Your task to perform on an android device: check storage Image 0: 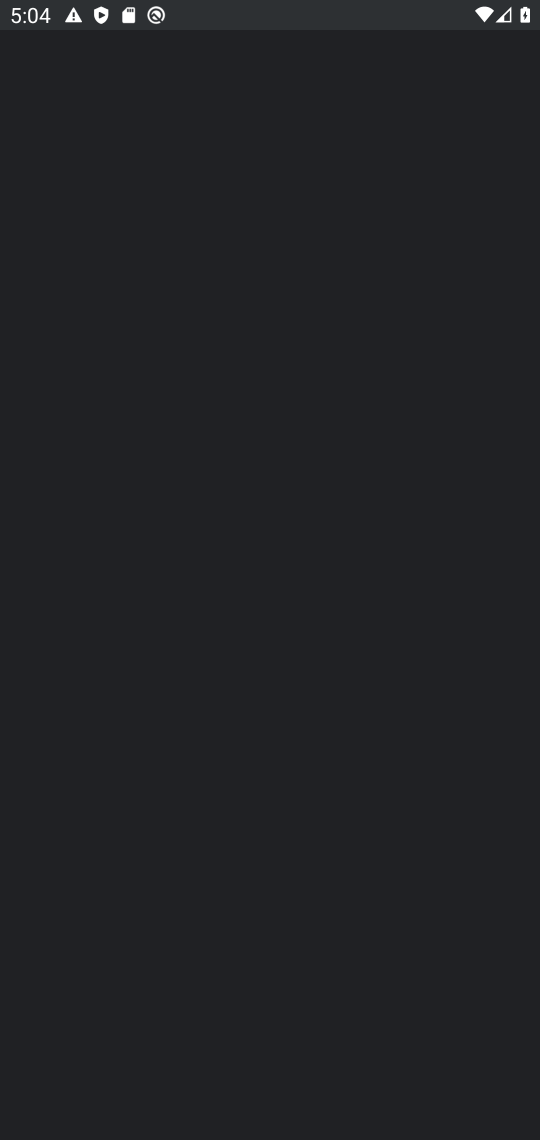
Step 0: press home button
Your task to perform on an android device: check storage Image 1: 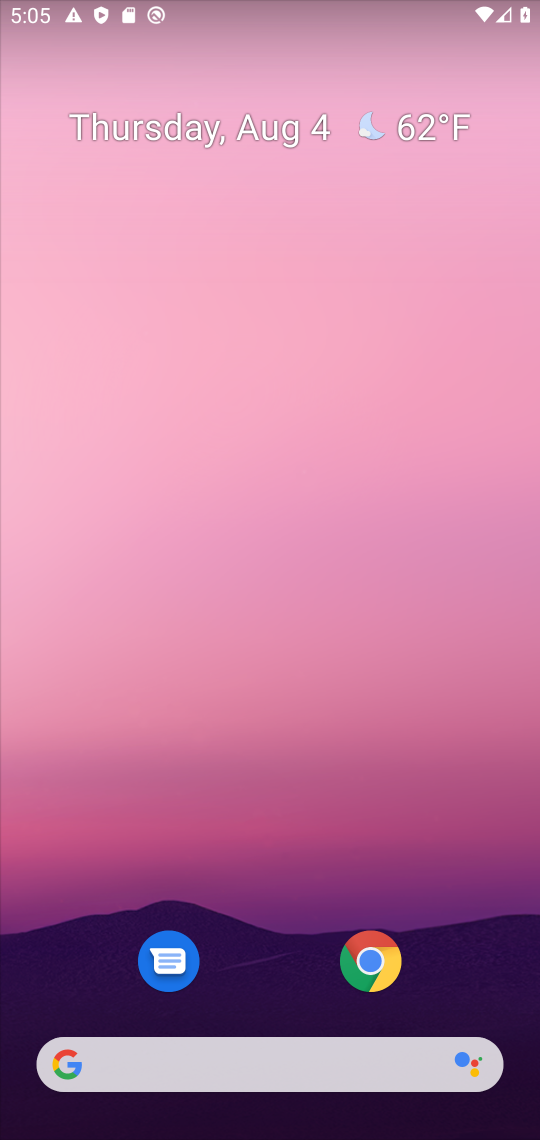
Step 1: drag from (466, 955) to (415, 195)
Your task to perform on an android device: check storage Image 2: 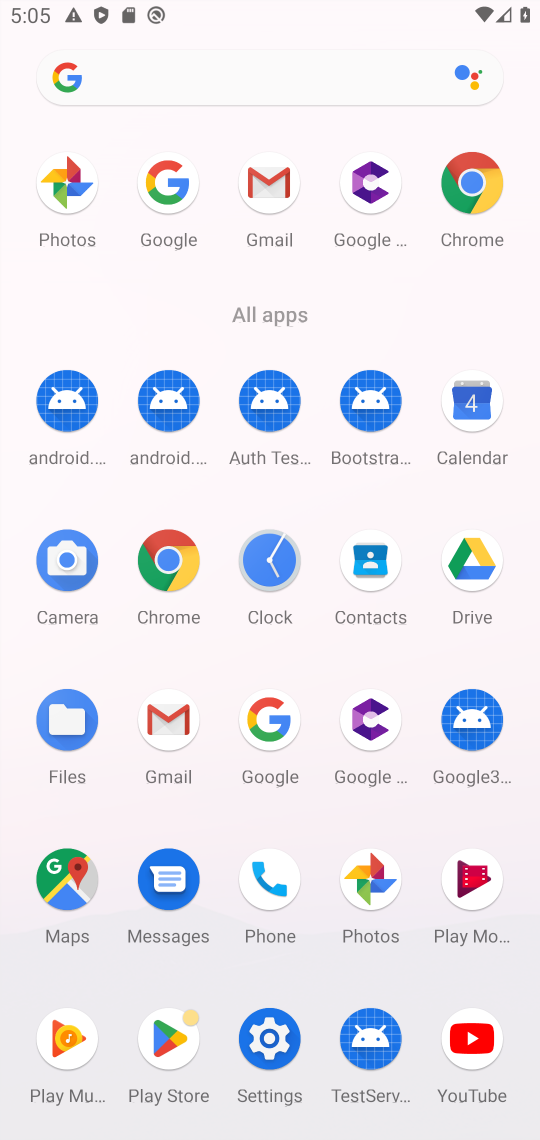
Step 2: click (282, 1020)
Your task to perform on an android device: check storage Image 3: 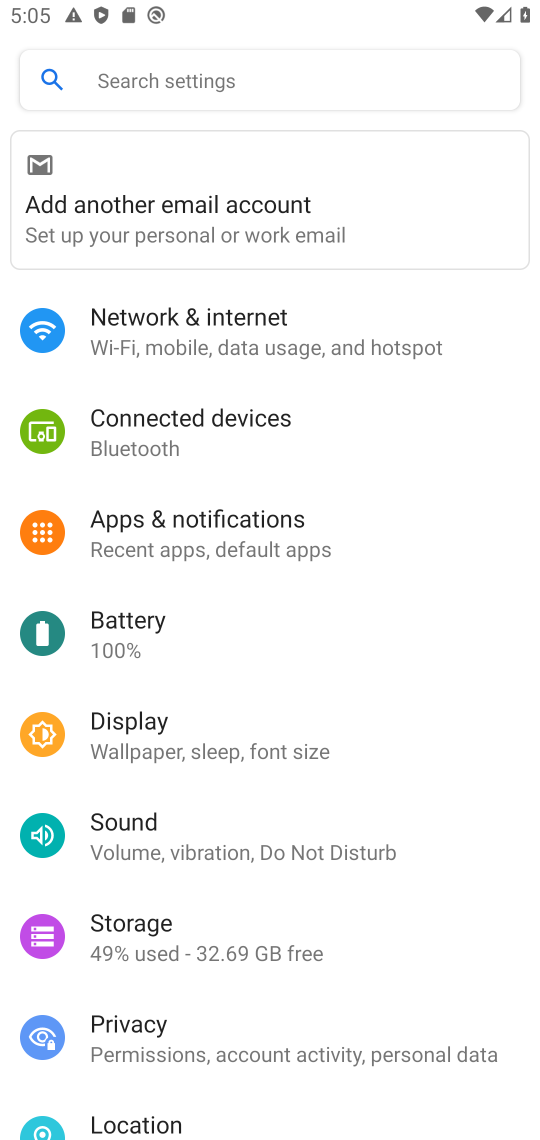
Step 3: drag from (264, 1016) to (198, 311)
Your task to perform on an android device: check storage Image 4: 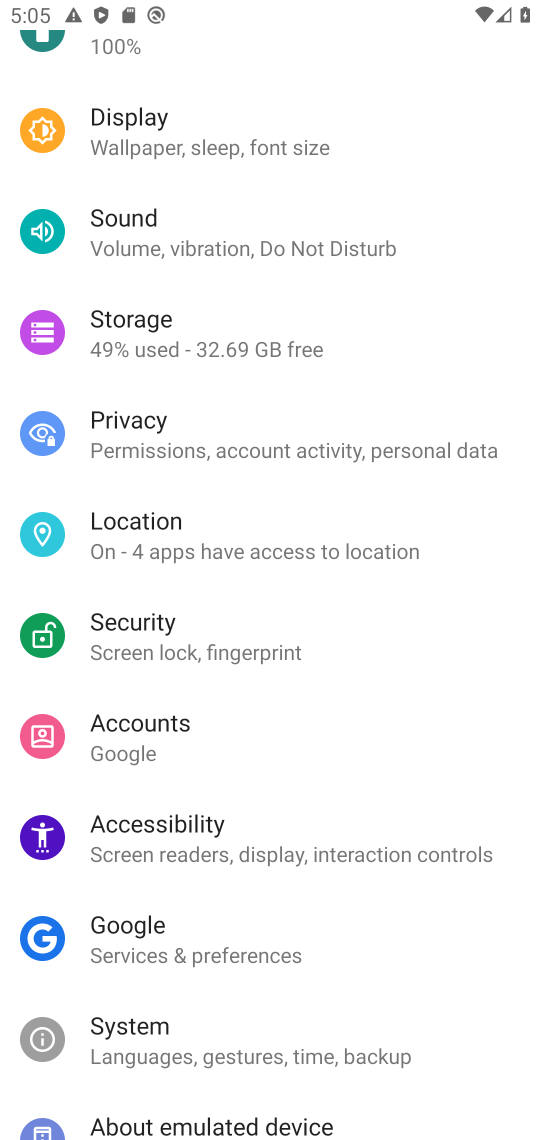
Step 4: click (179, 357)
Your task to perform on an android device: check storage Image 5: 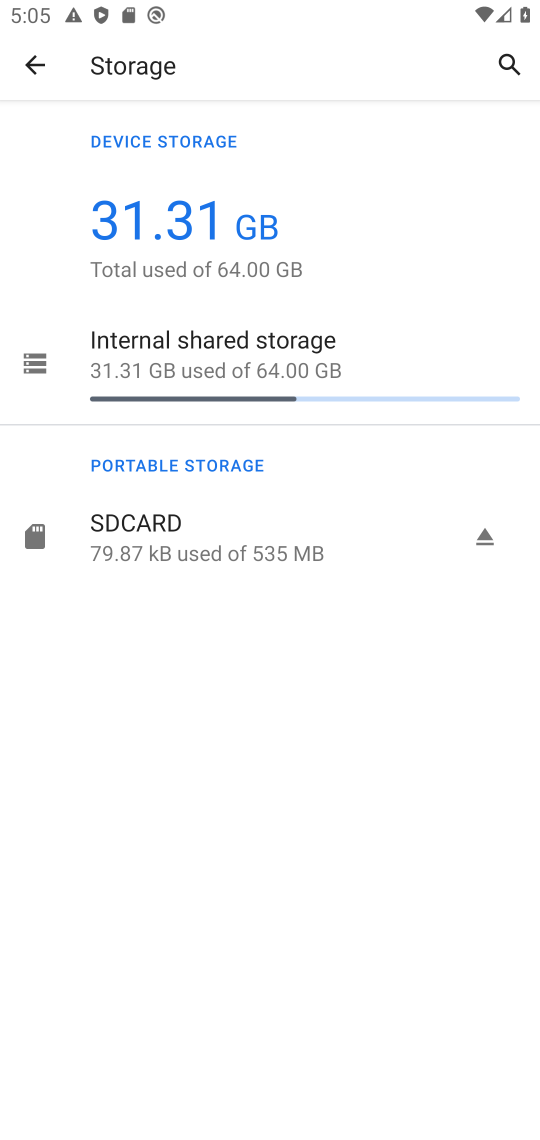
Step 5: task complete